Your task to perform on an android device: Clear the cart on target.com. Add "usb-c to usb-a" to the cart on target.com Image 0: 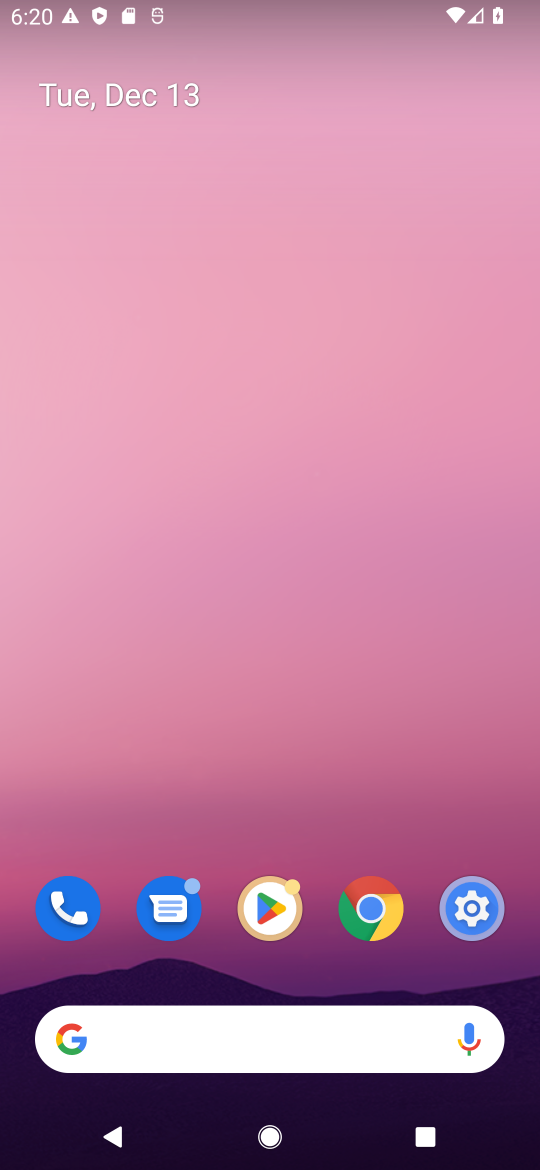
Step 0: click (106, 1023)
Your task to perform on an android device: Clear the cart on target.com. Add "usb-c to usb-a" to the cart on target.com Image 1: 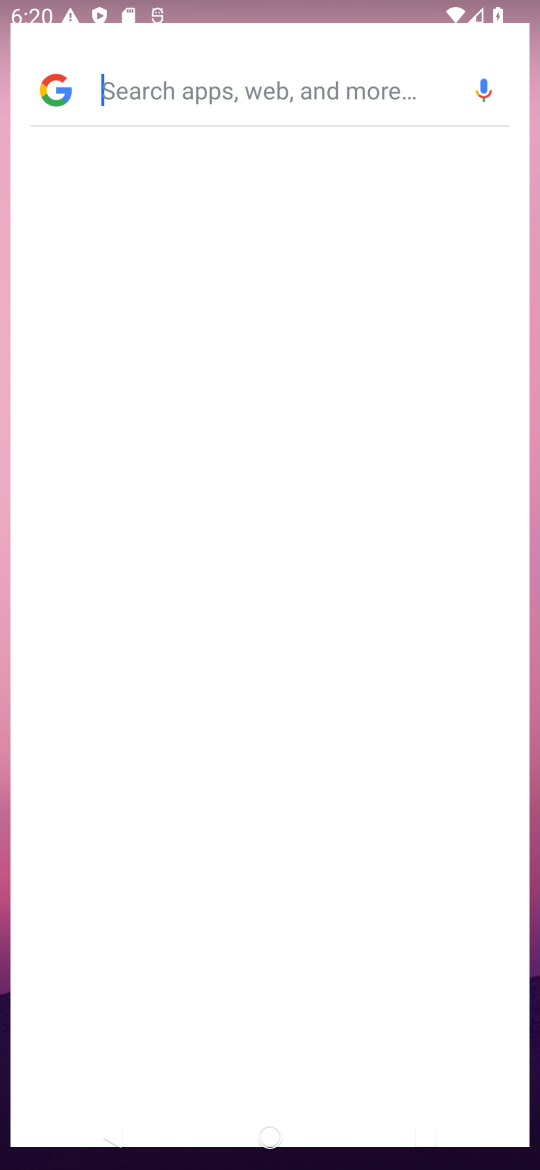
Step 1: click (164, 1051)
Your task to perform on an android device: Clear the cart on target.com. Add "usb-c to usb-a" to the cart on target.com Image 2: 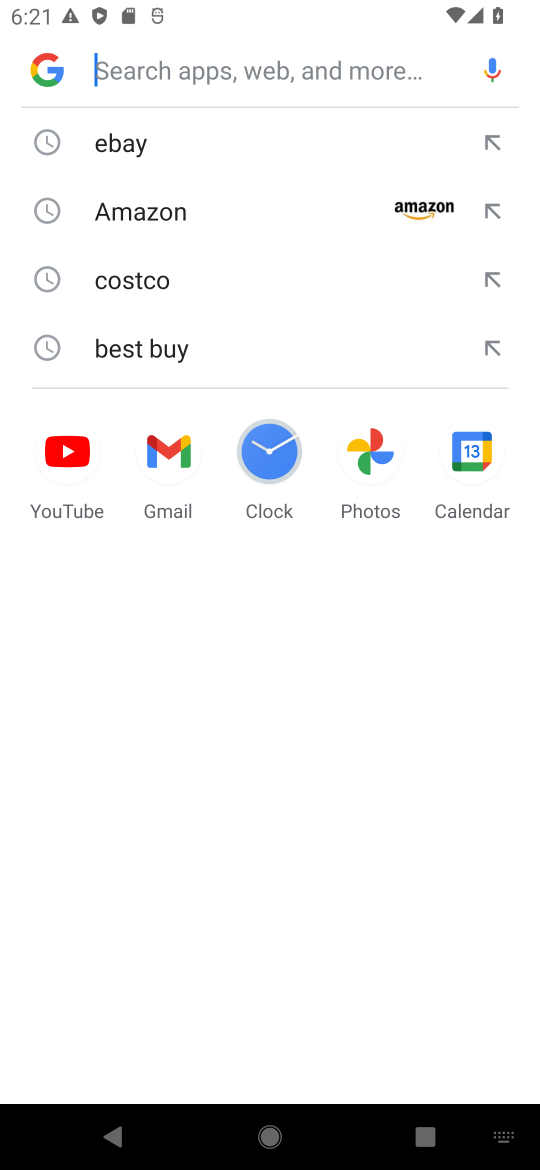
Step 2: type "target.com"
Your task to perform on an android device: Clear the cart on target.com. Add "usb-c to usb-a" to the cart on target.com Image 3: 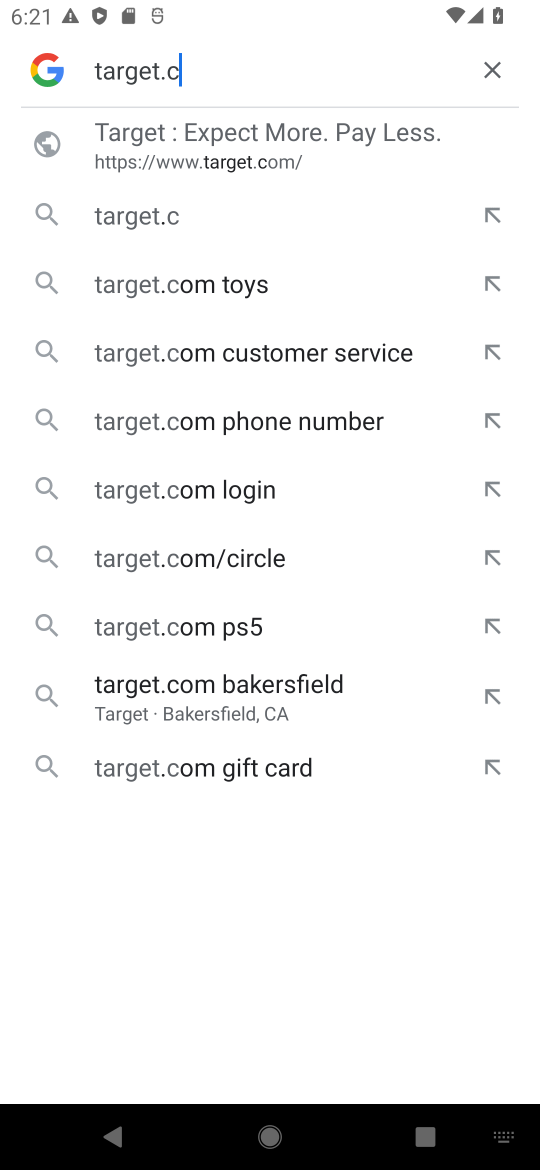
Step 3: press enter
Your task to perform on an android device: Clear the cart on target.com. Add "usb-c to usb-a" to the cart on target.com Image 4: 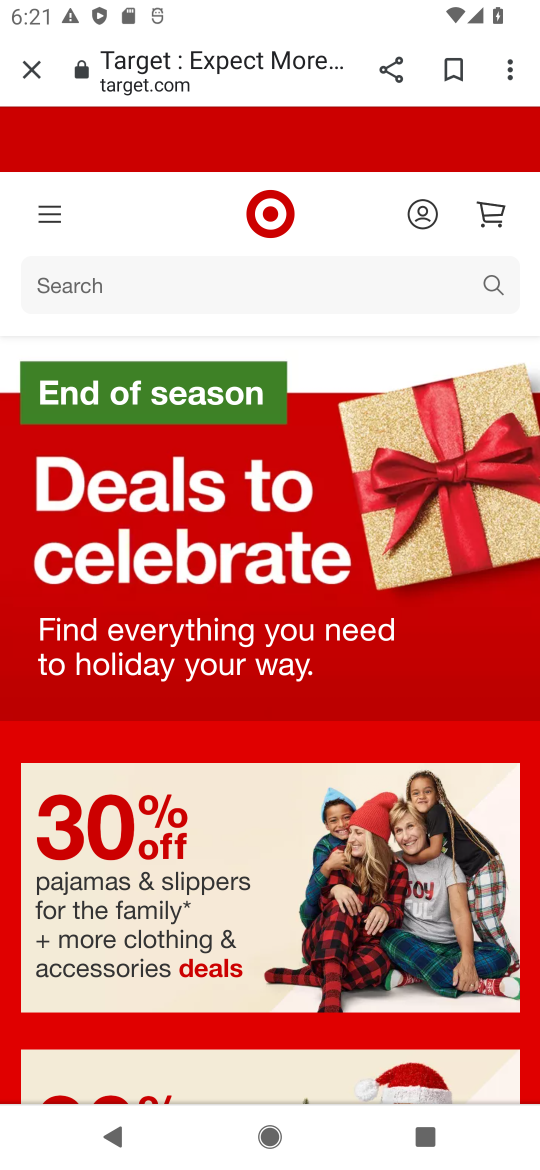
Step 4: click (483, 201)
Your task to perform on an android device: Clear the cart on target.com. Add "usb-c to usb-a" to the cart on target.com Image 5: 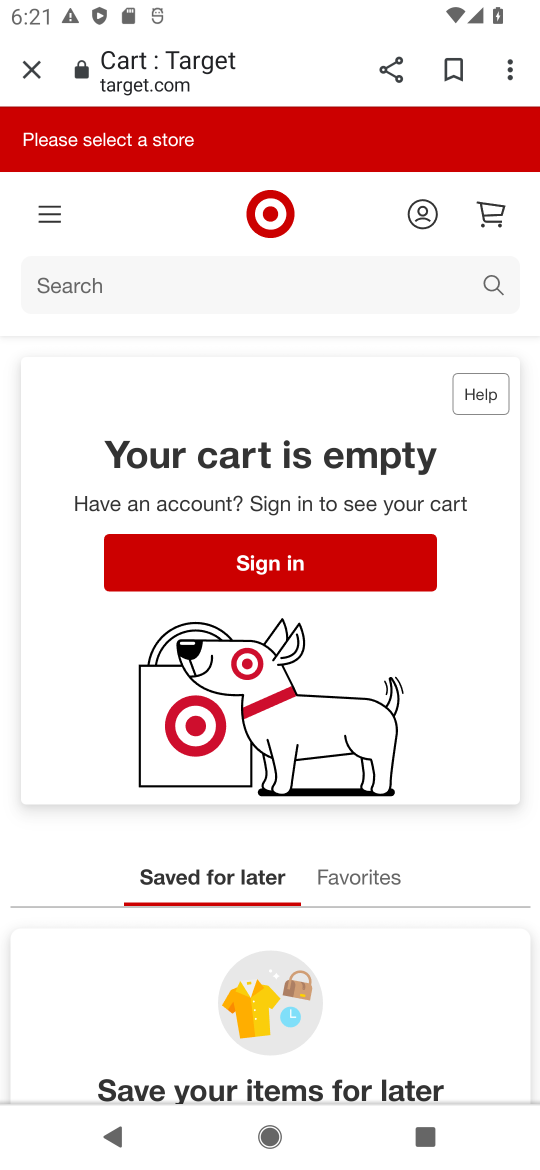
Step 5: click (106, 288)
Your task to perform on an android device: Clear the cart on target.com. Add "usb-c to usb-a" to the cart on target.com Image 6: 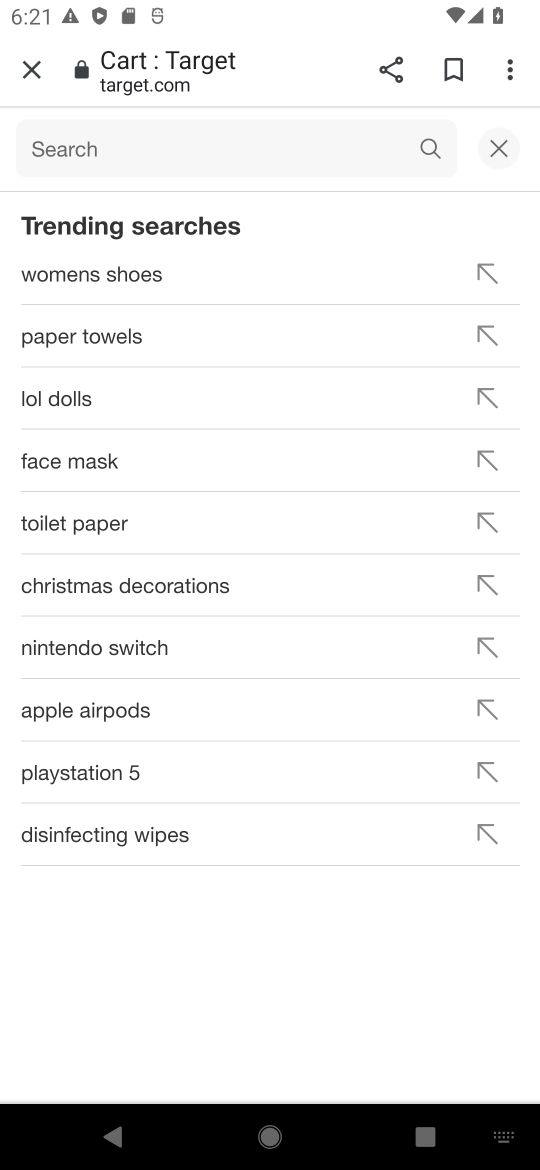
Step 6: press enter
Your task to perform on an android device: Clear the cart on target.com. Add "usb-c to usb-a" to the cart on target.com Image 7: 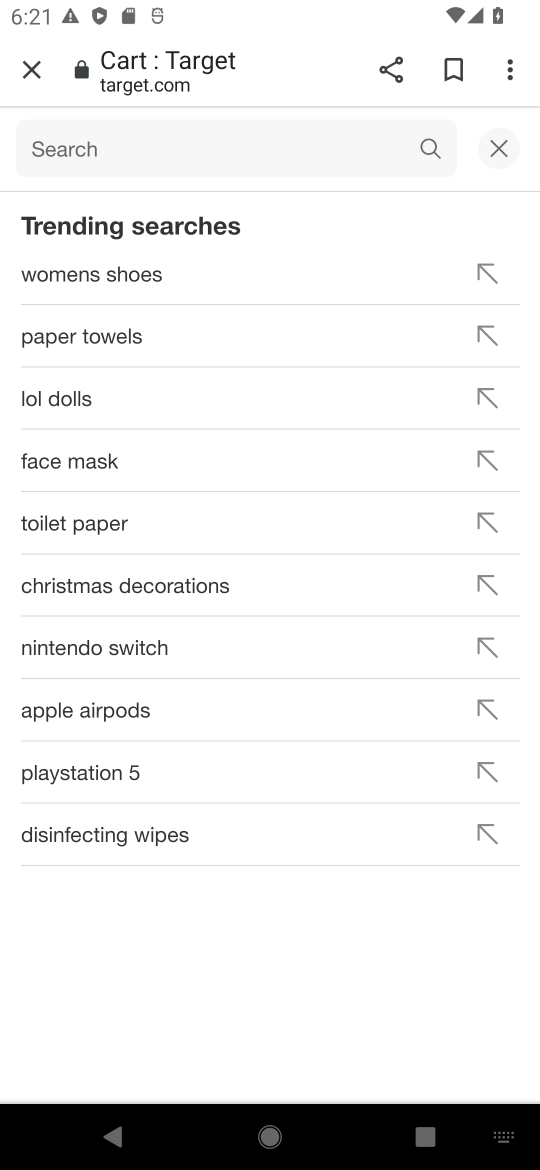
Step 7: type "usb-c to usb-a"
Your task to perform on an android device: Clear the cart on target.com. Add "usb-c to usb-a" to the cart on target.com Image 8: 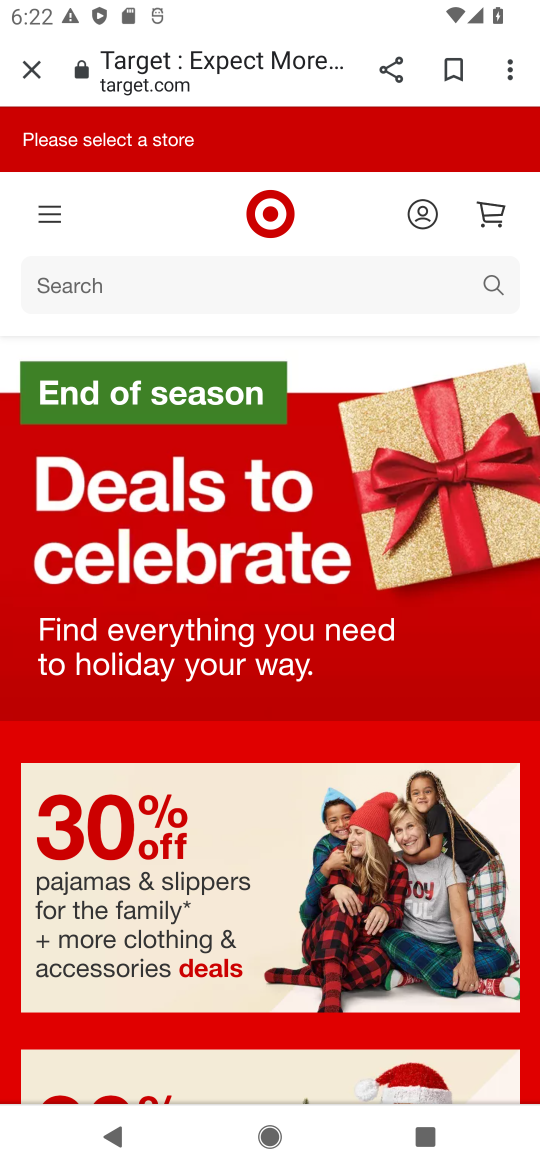
Step 8: click (155, 279)
Your task to perform on an android device: Clear the cart on target.com. Add "usb-c to usb-a" to the cart on target.com Image 9: 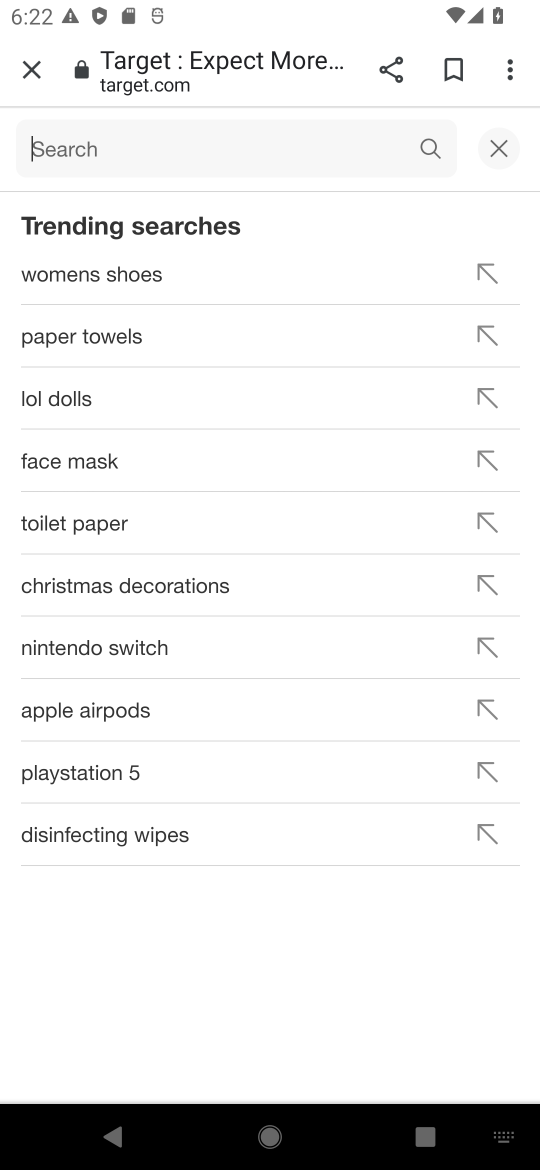
Step 9: type "usb-c to usb-a"
Your task to perform on an android device: Clear the cart on target.com. Add "usb-c to usb-a" to the cart on target.com Image 10: 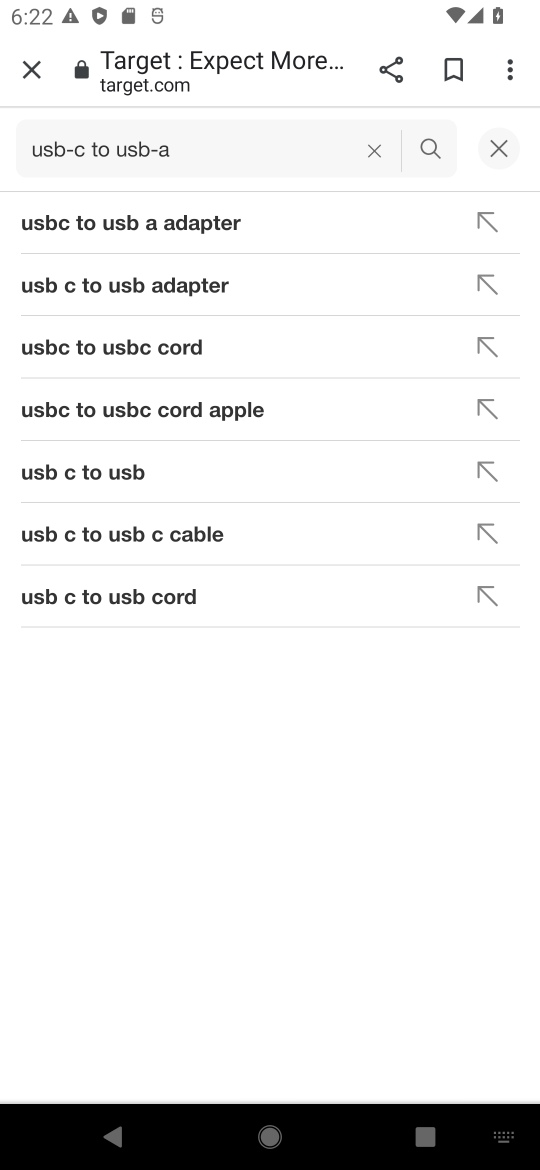
Step 10: press enter
Your task to perform on an android device: Clear the cart on target.com. Add "usb-c to usb-a" to the cart on target.com Image 11: 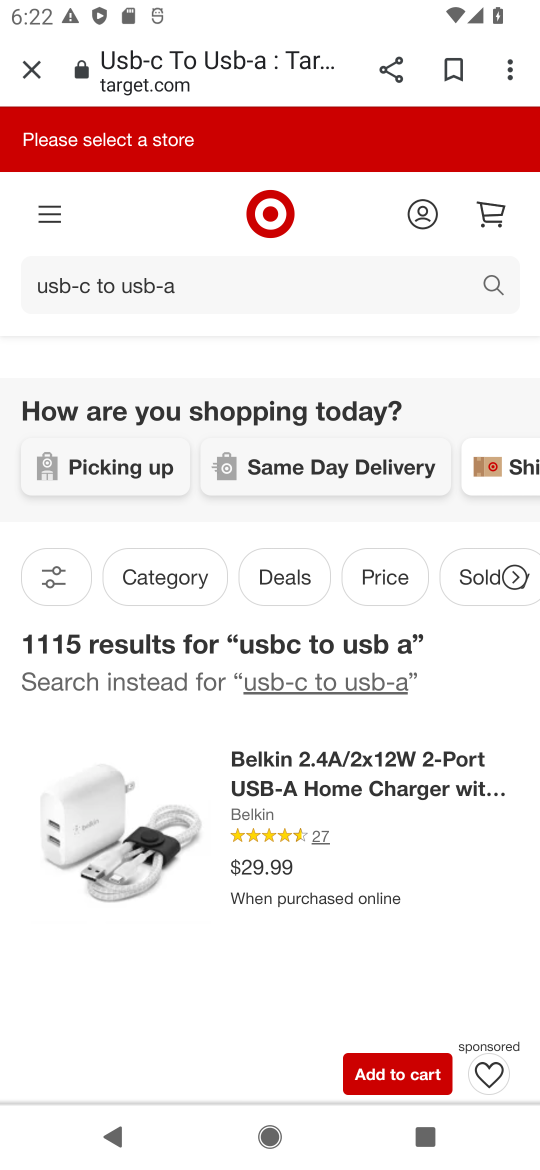
Step 11: task complete